Your task to perform on an android device: toggle airplane mode Image 0: 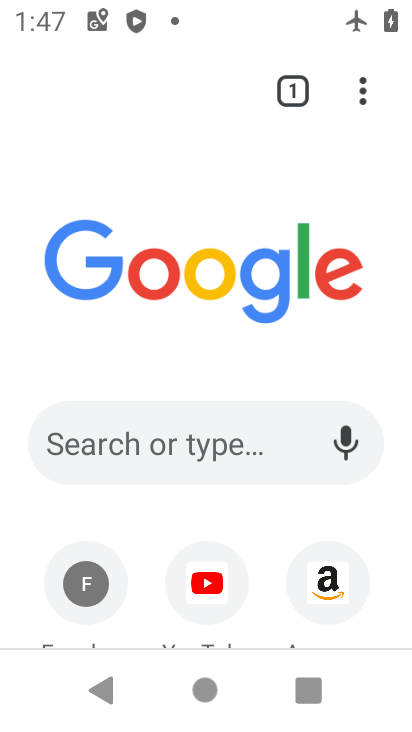
Step 0: press home button
Your task to perform on an android device: toggle airplane mode Image 1: 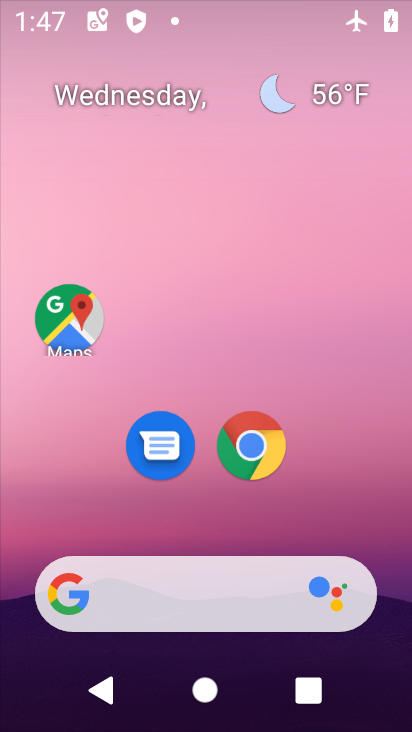
Step 1: drag from (205, 541) to (151, 30)
Your task to perform on an android device: toggle airplane mode Image 2: 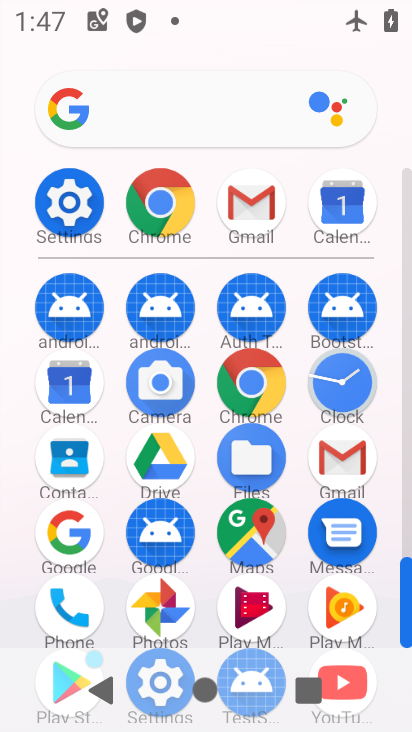
Step 2: click (72, 204)
Your task to perform on an android device: toggle airplane mode Image 3: 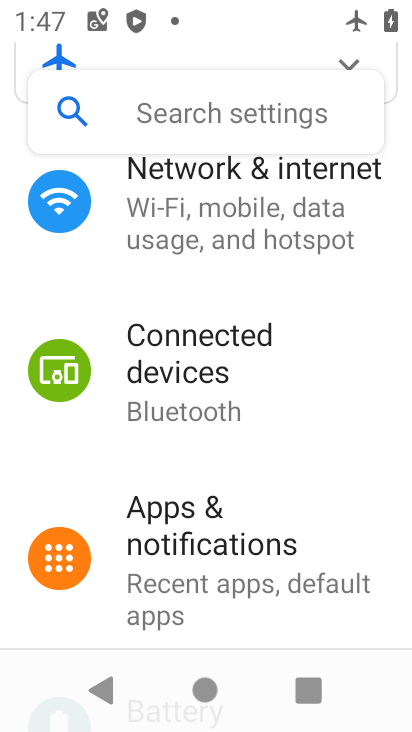
Step 3: click (177, 212)
Your task to perform on an android device: toggle airplane mode Image 4: 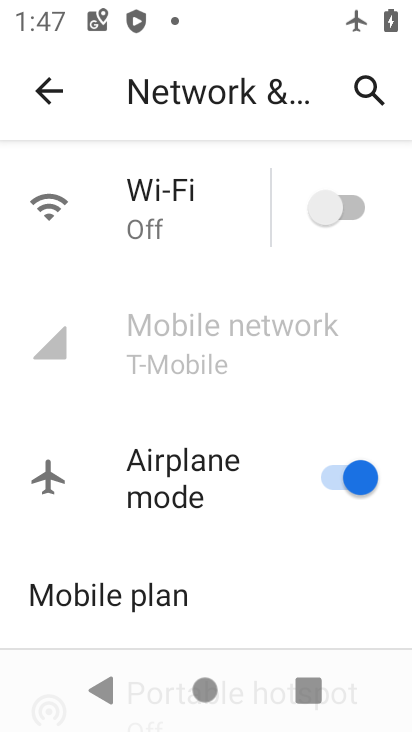
Step 4: click (325, 496)
Your task to perform on an android device: toggle airplane mode Image 5: 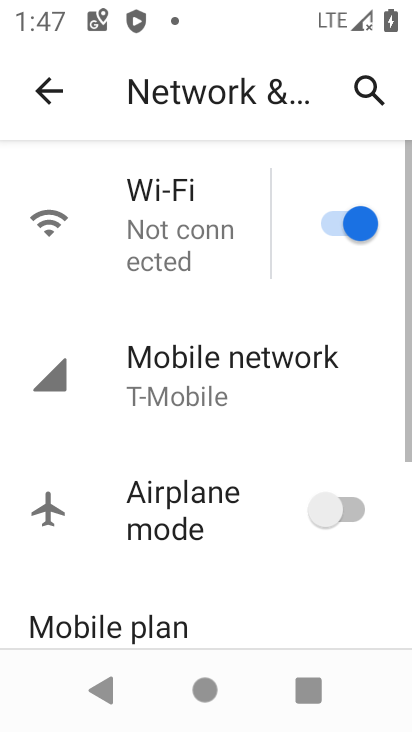
Step 5: task complete